Your task to perform on an android device: Open Google Maps and go to "Timeline" Image 0: 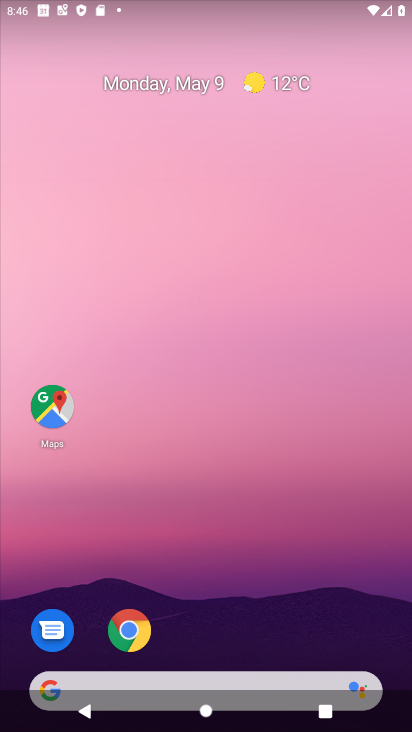
Step 0: click (65, 401)
Your task to perform on an android device: Open Google Maps and go to "Timeline" Image 1: 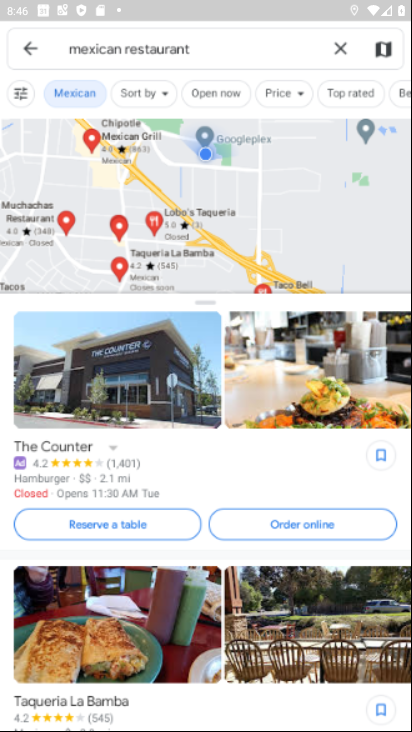
Step 1: click (24, 91)
Your task to perform on an android device: Open Google Maps and go to "Timeline" Image 2: 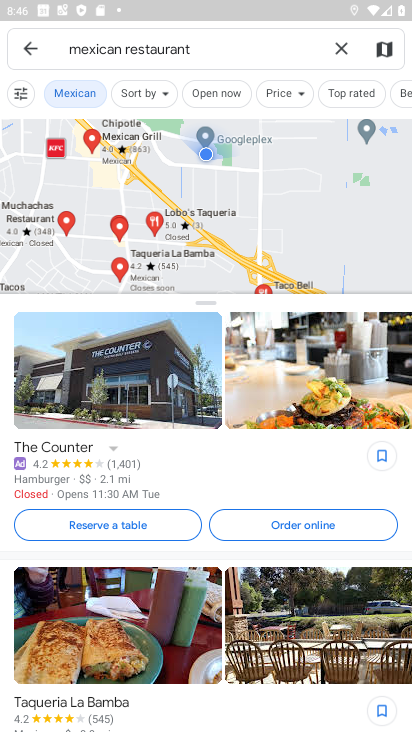
Step 2: click (343, 45)
Your task to perform on an android device: Open Google Maps and go to "Timeline" Image 3: 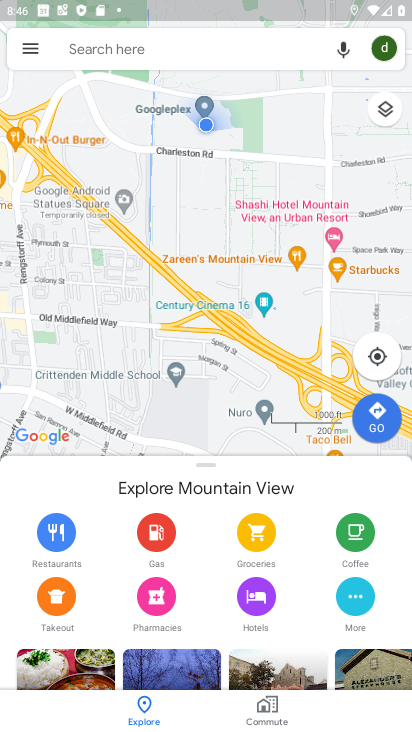
Step 3: drag from (108, 142) to (127, 396)
Your task to perform on an android device: Open Google Maps and go to "Timeline" Image 4: 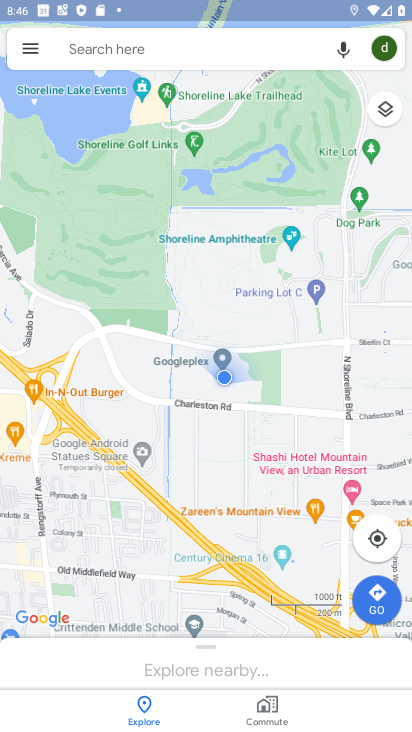
Step 4: click (22, 54)
Your task to perform on an android device: Open Google Maps and go to "Timeline" Image 5: 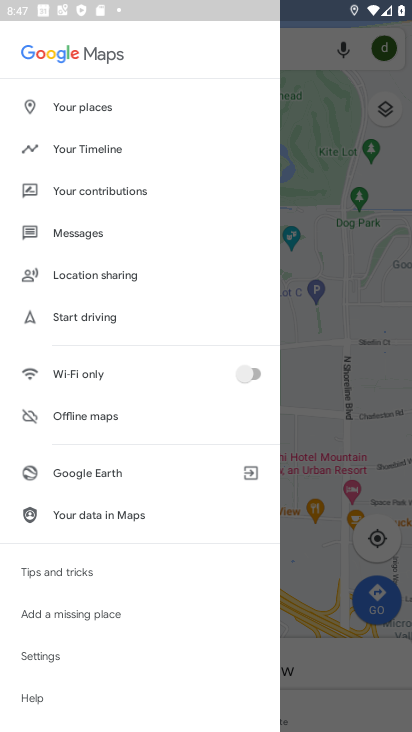
Step 5: click (95, 150)
Your task to perform on an android device: Open Google Maps and go to "Timeline" Image 6: 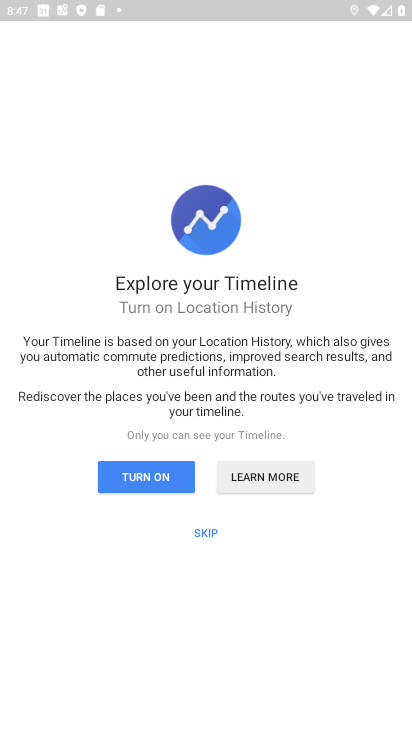
Step 6: click (146, 479)
Your task to perform on an android device: Open Google Maps and go to "Timeline" Image 7: 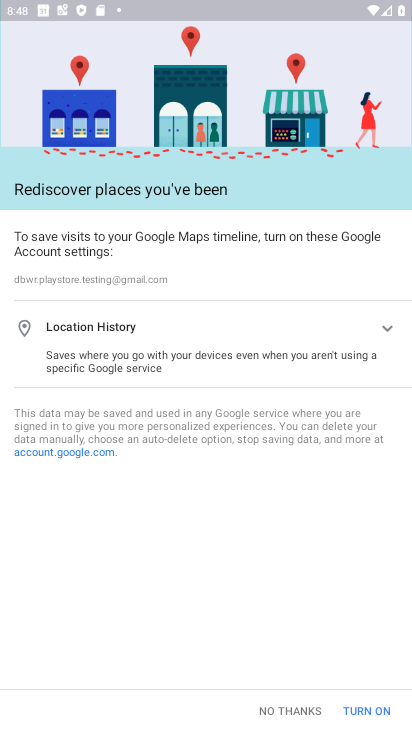
Step 7: task complete